Your task to perform on an android device: Open the calendar and show me this week's events? Image 0: 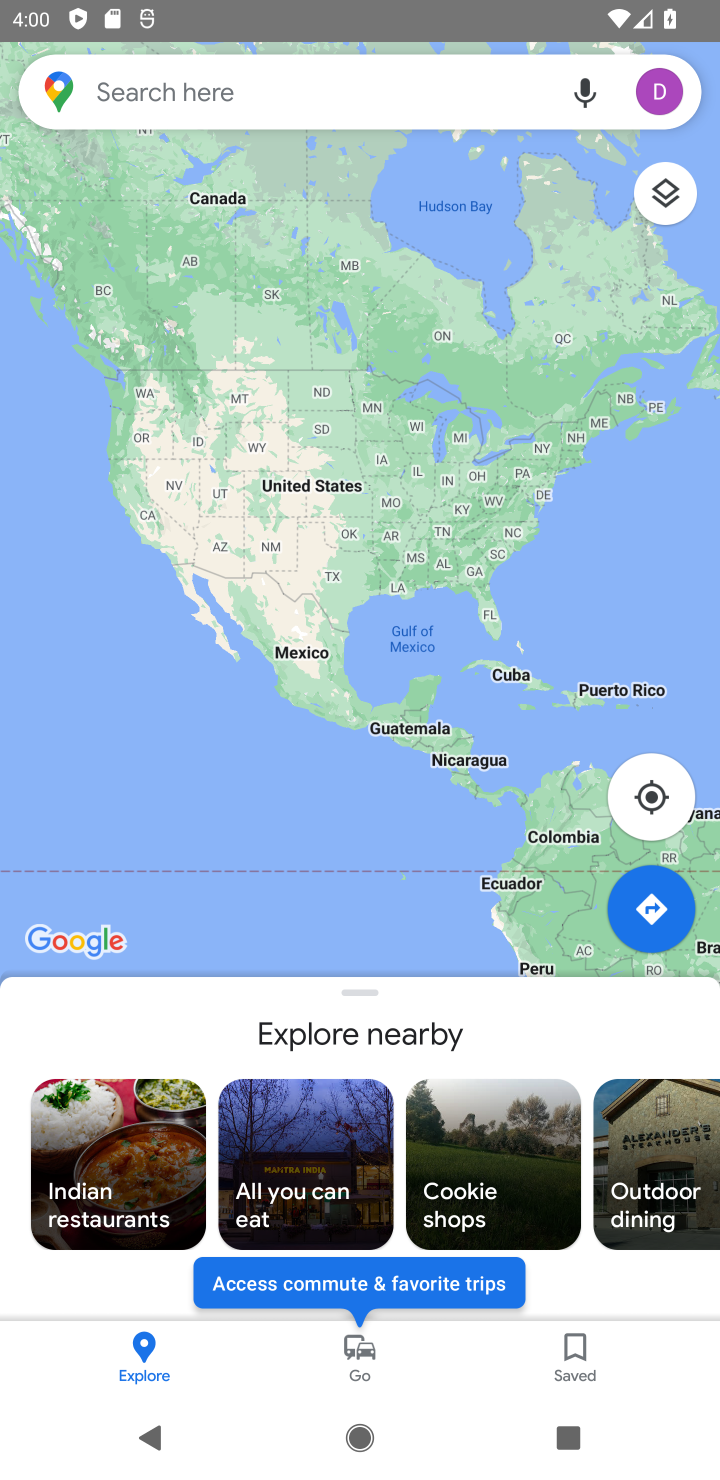
Step 0: press home button
Your task to perform on an android device: Open the calendar and show me this week's events? Image 1: 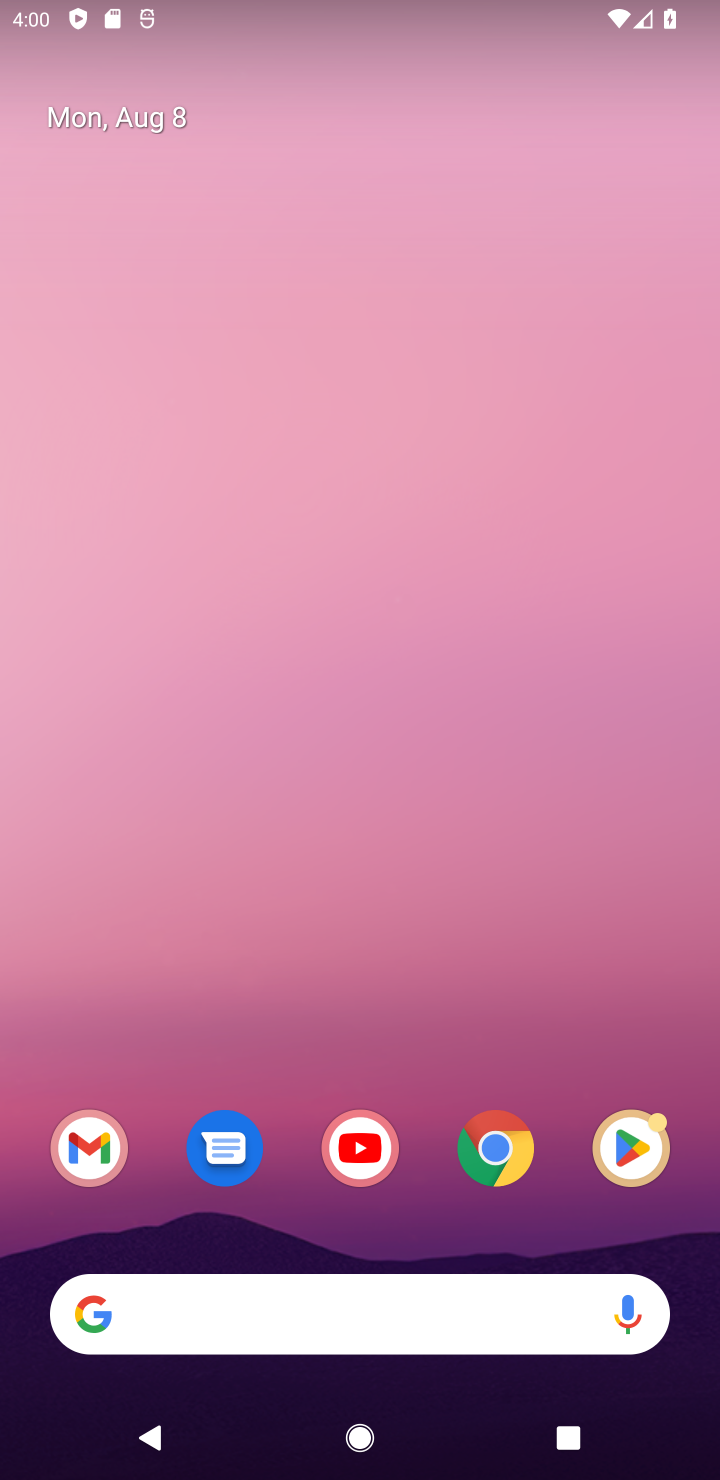
Step 1: drag from (188, 1157) to (18, 314)
Your task to perform on an android device: Open the calendar and show me this week's events? Image 2: 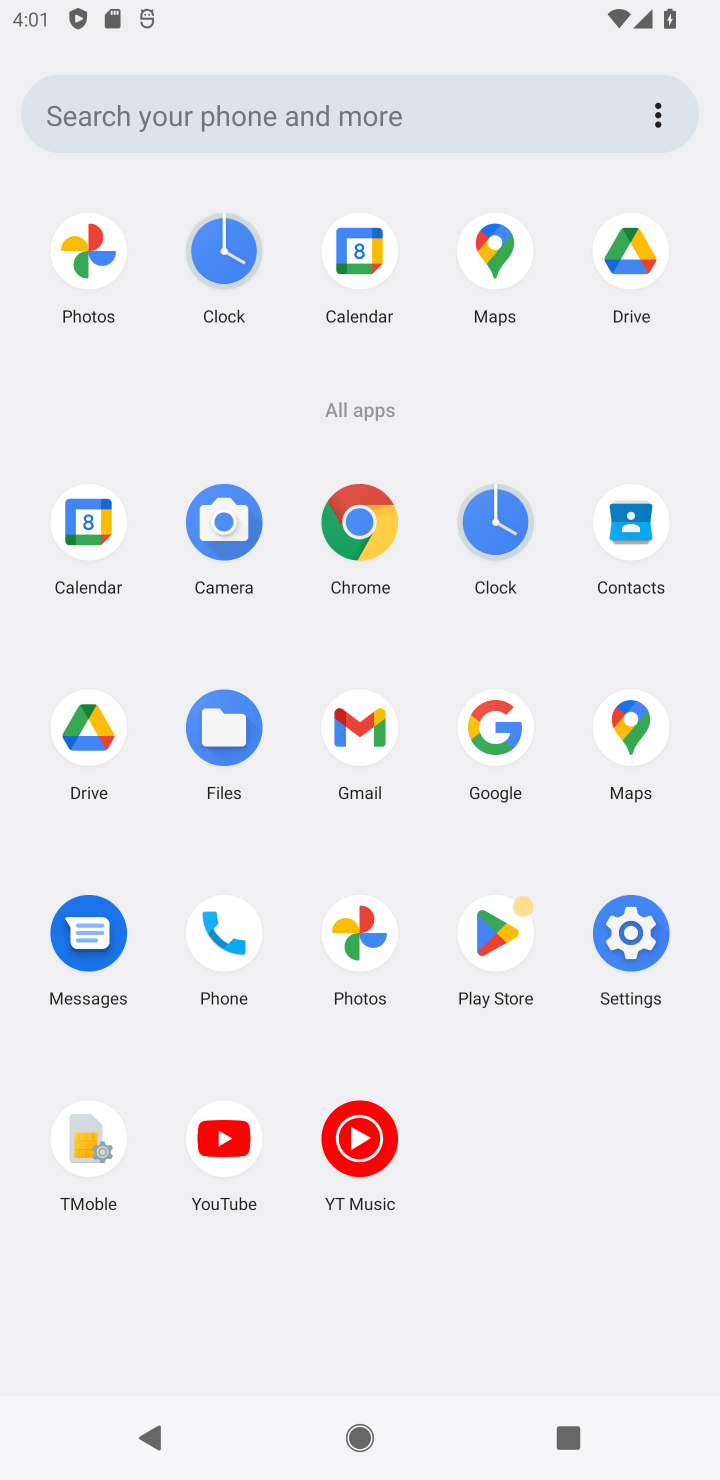
Step 2: click (362, 534)
Your task to perform on an android device: Open the calendar and show me this week's events? Image 3: 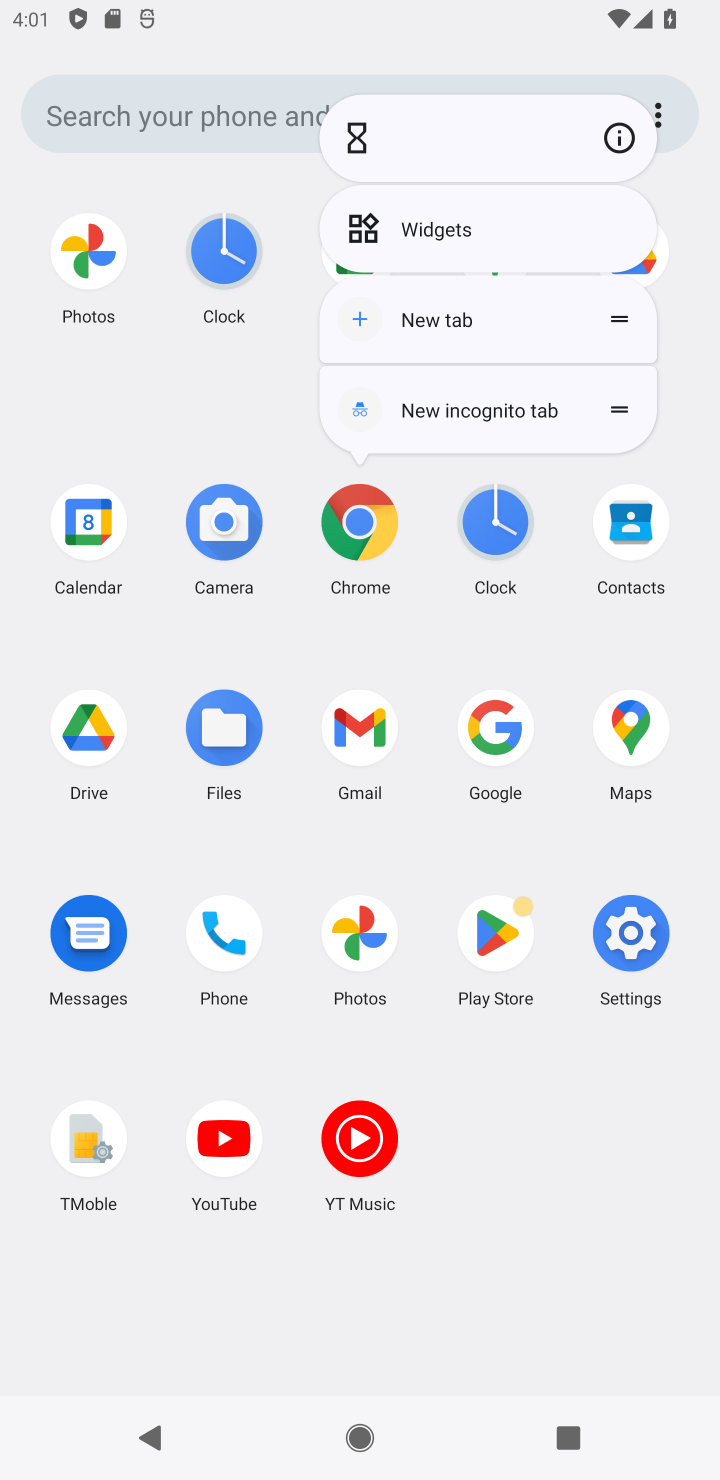
Step 3: click (64, 536)
Your task to perform on an android device: Open the calendar and show me this week's events? Image 4: 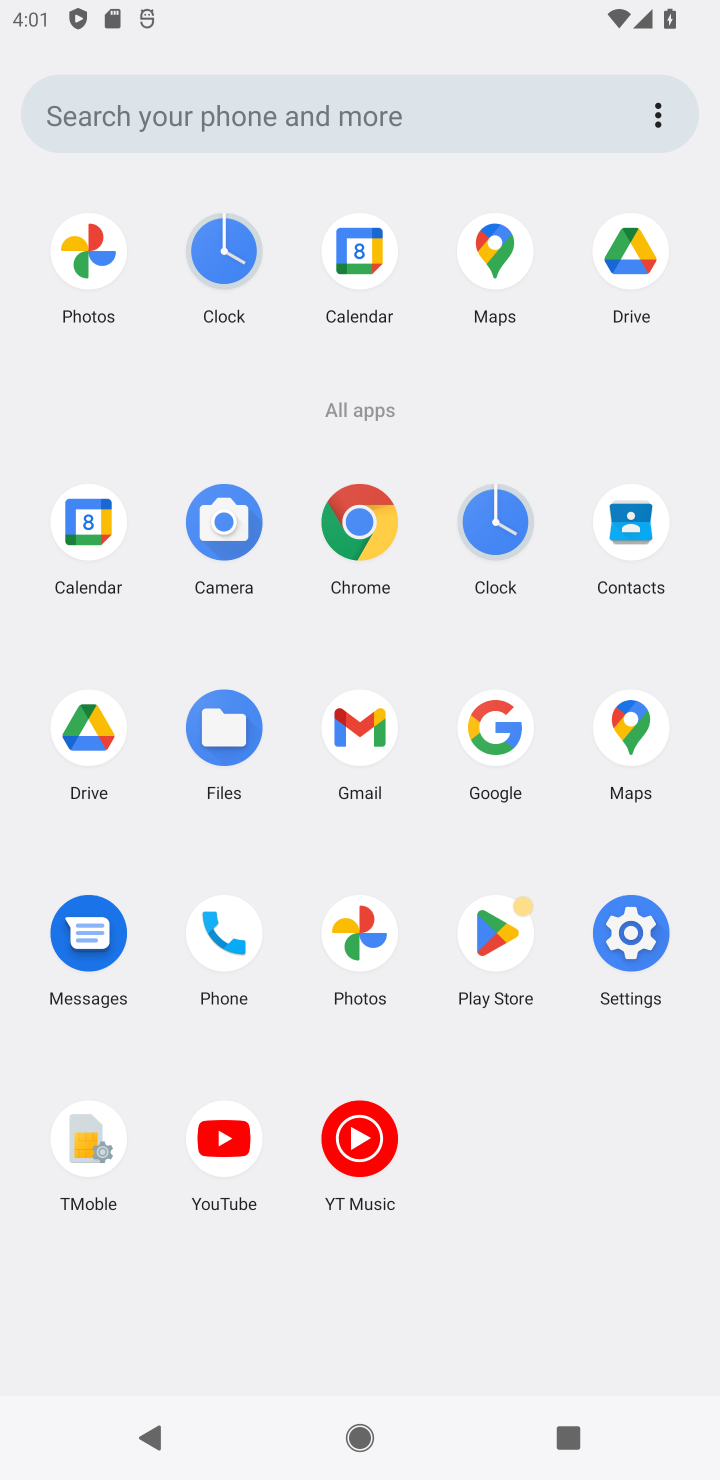
Step 4: click (66, 535)
Your task to perform on an android device: Open the calendar and show me this week's events? Image 5: 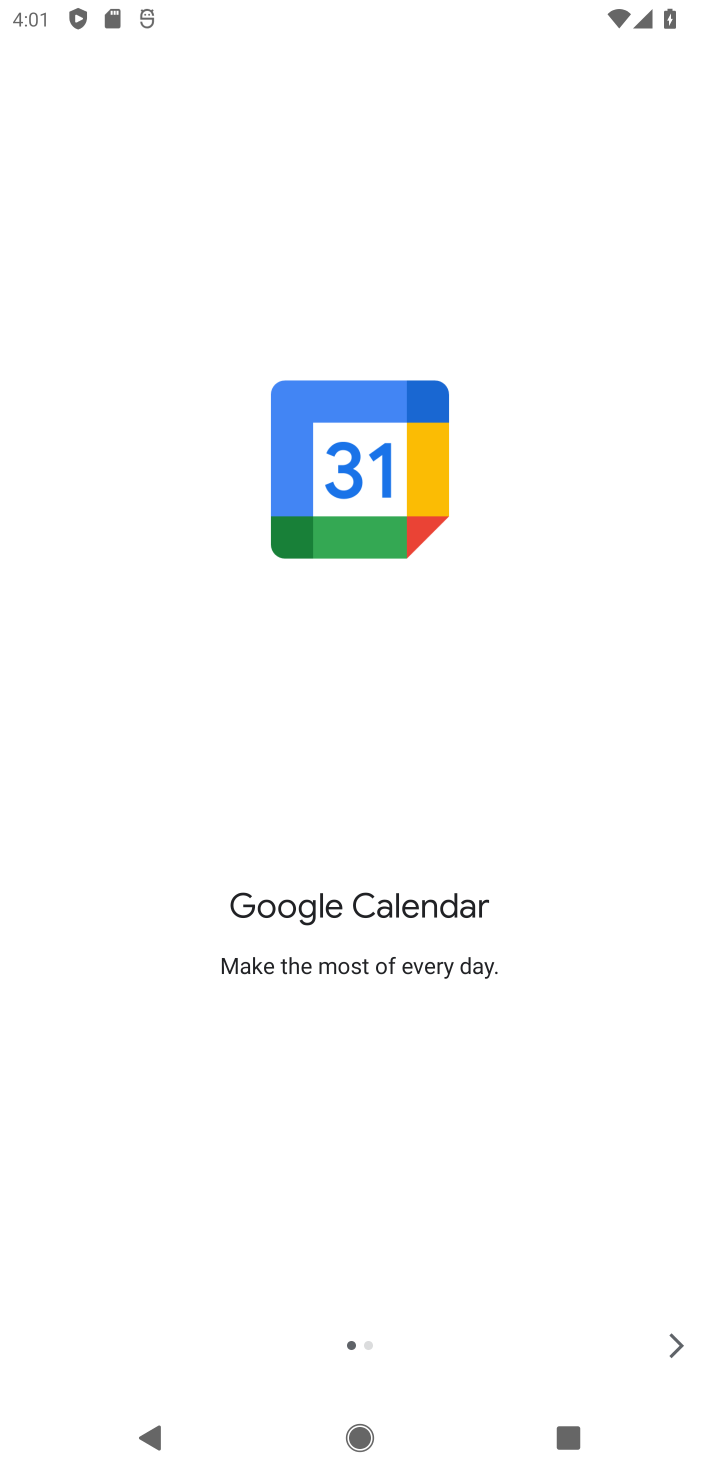
Step 5: click (673, 1335)
Your task to perform on an android device: Open the calendar and show me this week's events? Image 6: 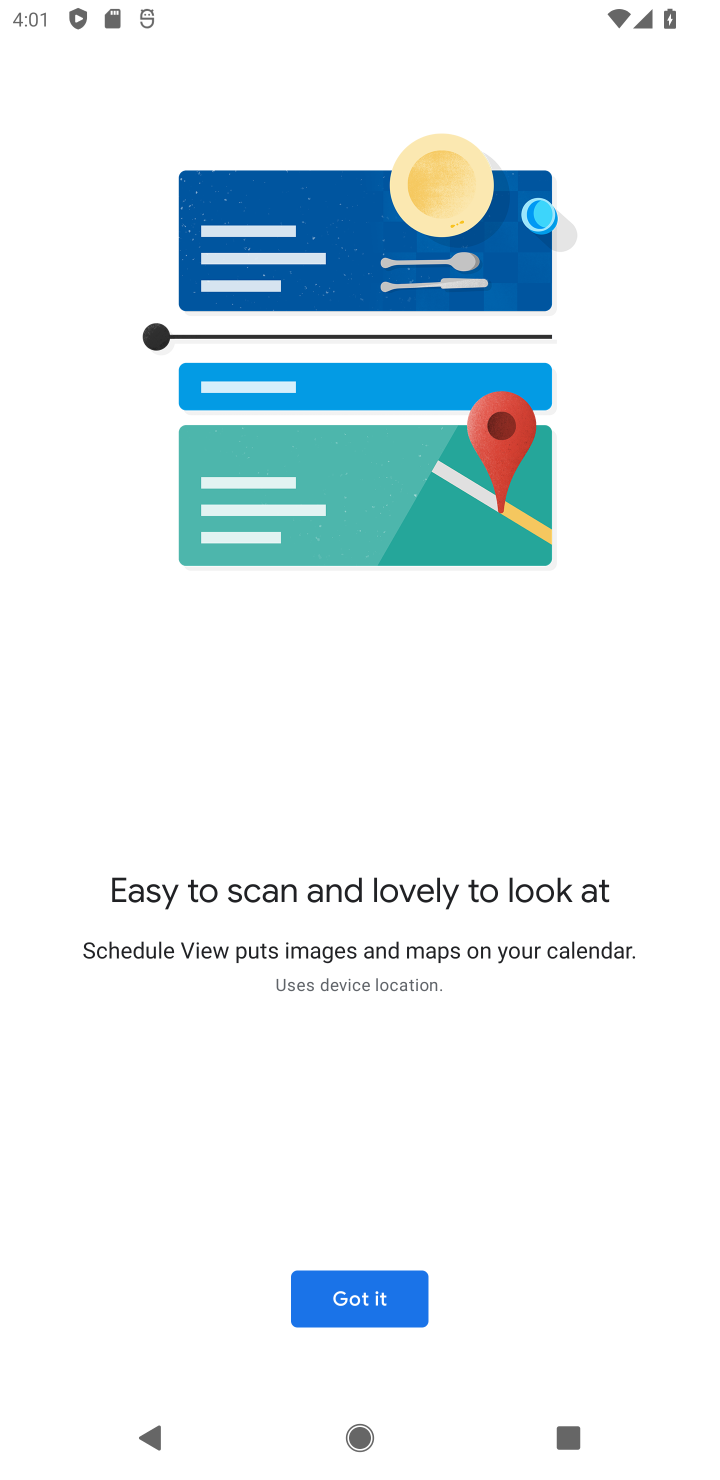
Step 6: click (331, 1293)
Your task to perform on an android device: Open the calendar and show me this week's events? Image 7: 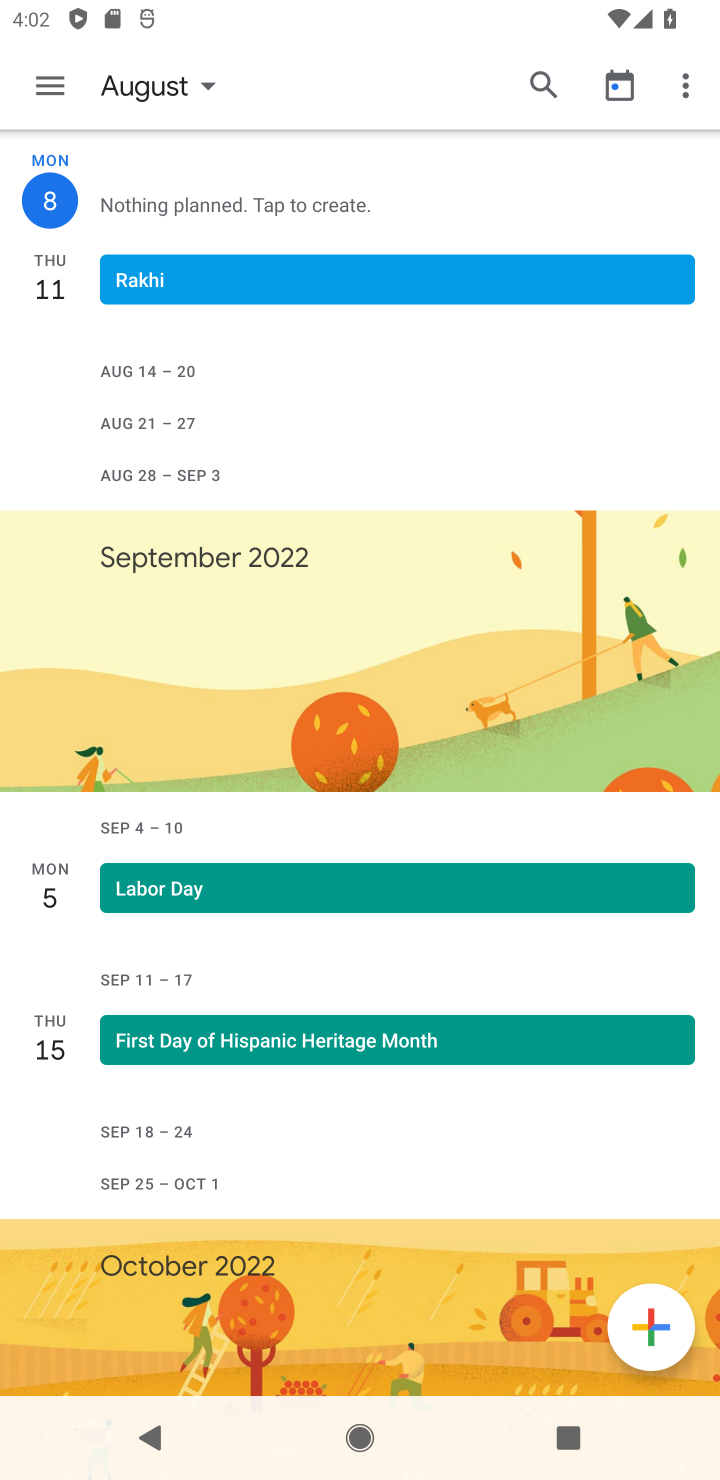
Step 7: click (156, 84)
Your task to perform on an android device: Open the calendar and show me this week's events? Image 8: 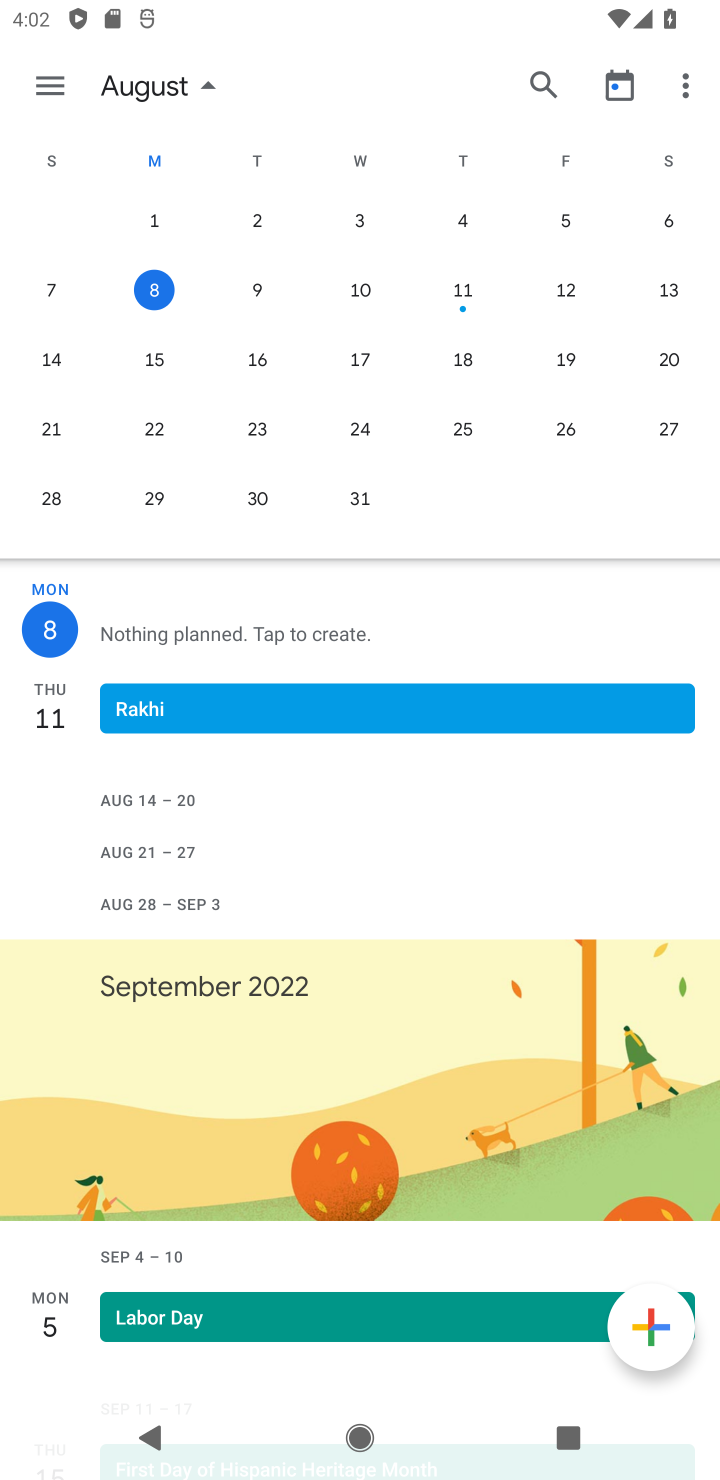
Step 8: click (160, 361)
Your task to perform on an android device: Open the calendar and show me this week's events? Image 9: 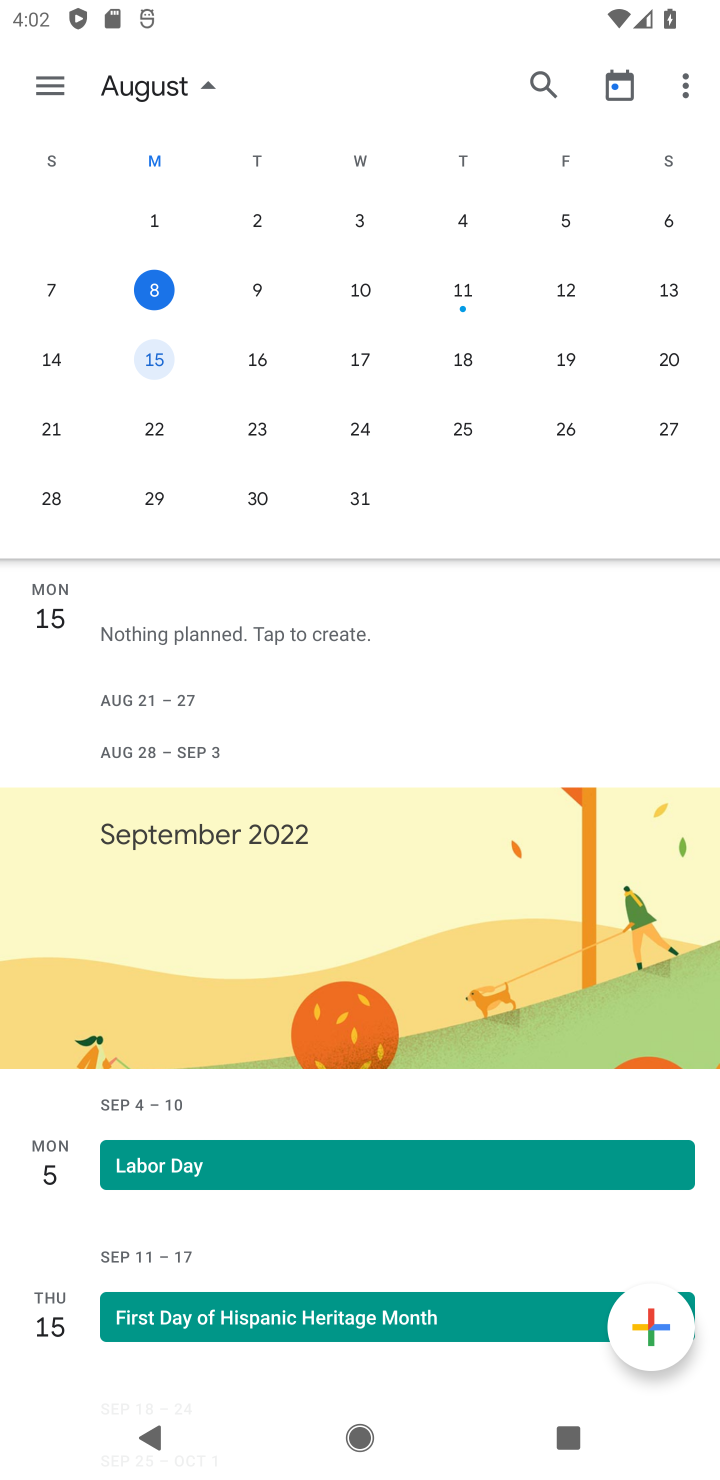
Step 9: task complete